Your task to perform on an android device: Show me popular games on the Play Store Image 0: 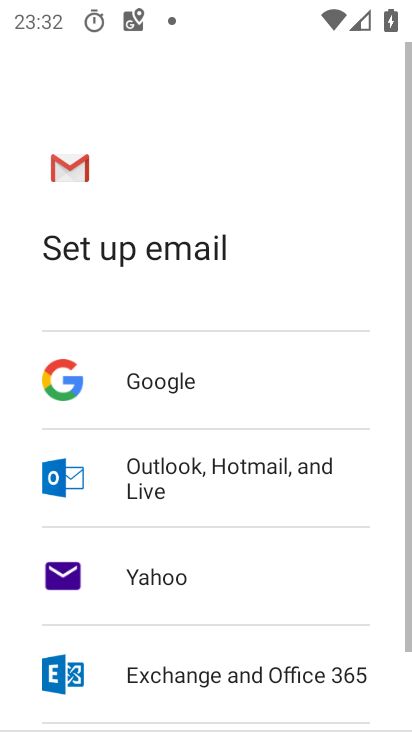
Step 0: press home button
Your task to perform on an android device: Show me popular games on the Play Store Image 1: 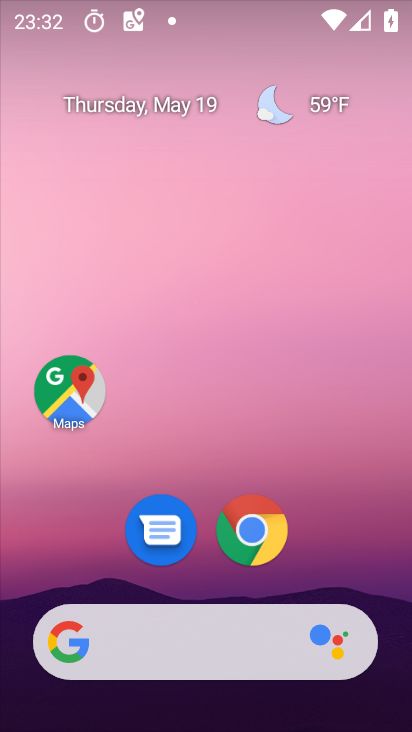
Step 1: drag from (365, 561) to (317, 145)
Your task to perform on an android device: Show me popular games on the Play Store Image 2: 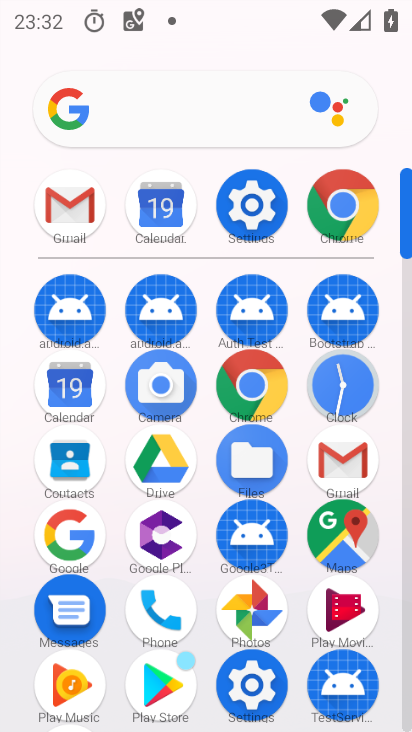
Step 2: click (163, 687)
Your task to perform on an android device: Show me popular games on the Play Store Image 3: 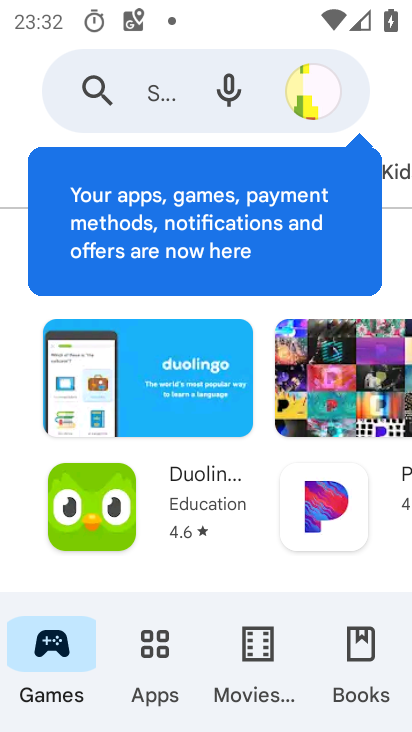
Step 3: click (395, 118)
Your task to perform on an android device: Show me popular games on the Play Store Image 4: 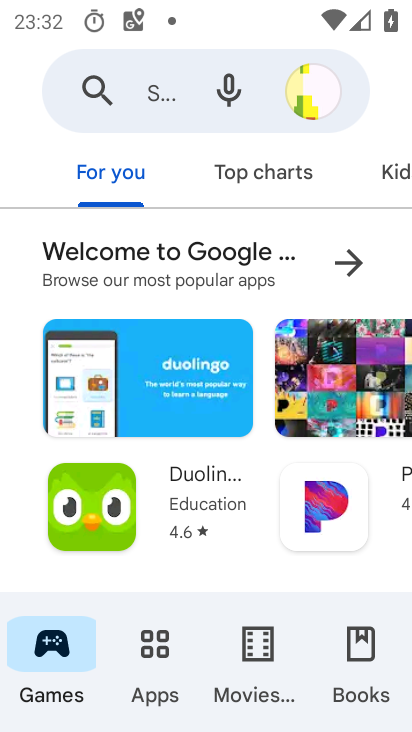
Step 4: click (276, 174)
Your task to perform on an android device: Show me popular games on the Play Store Image 5: 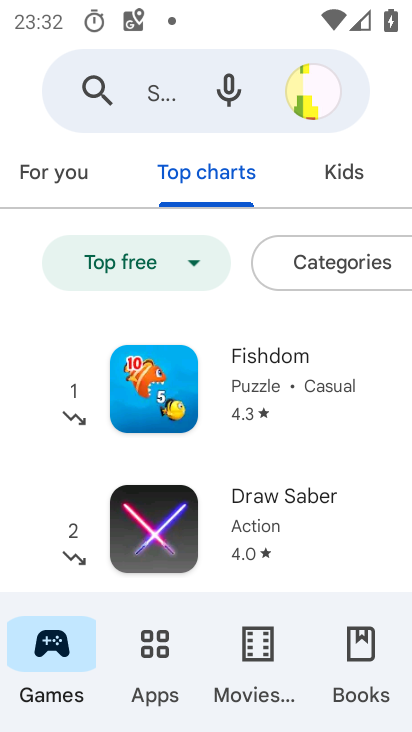
Step 5: task complete